Your task to perform on an android device: Go to internet settings Image 0: 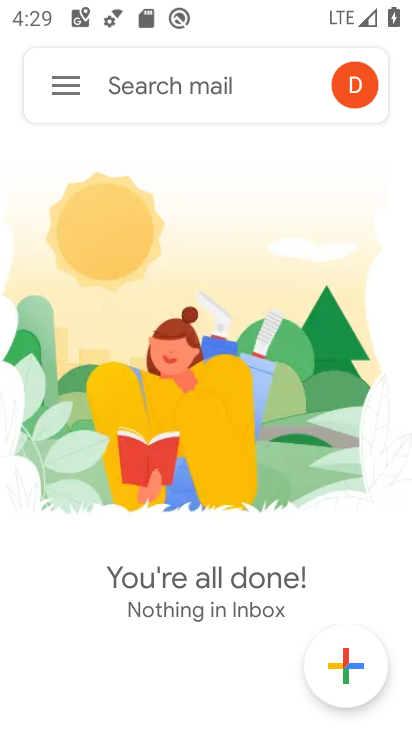
Step 0: press home button
Your task to perform on an android device: Go to internet settings Image 1: 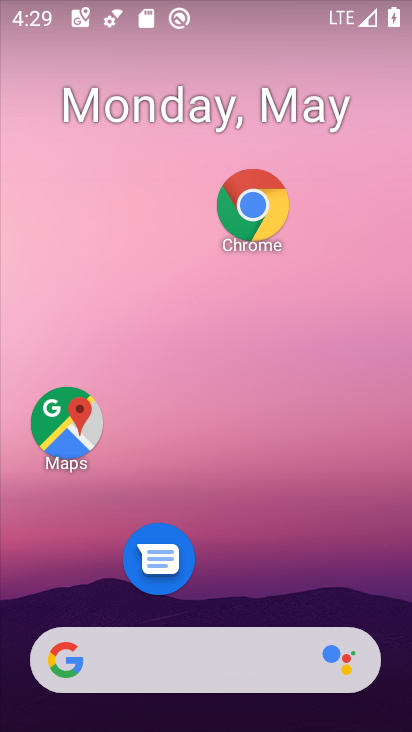
Step 1: drag from (220, 563) to (187, 261)
Your task to perform on an android device: Go to internet settings Image 2: 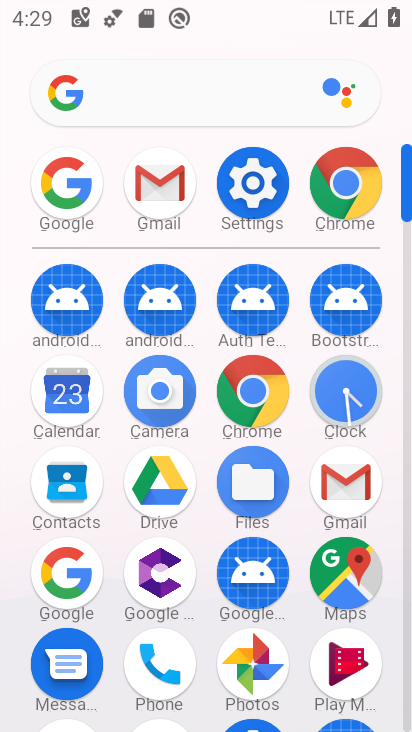
Step 2: click (252, 184)
Your task to perform on an android device: Go to internet settings Image 3: 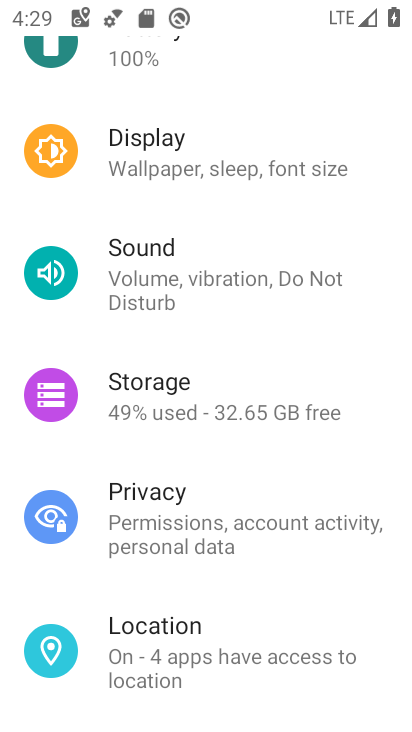
Step 3: drag from (199, 327) to (198, 517)
Your task to perform on an android device: Go to internet settings Image 4: 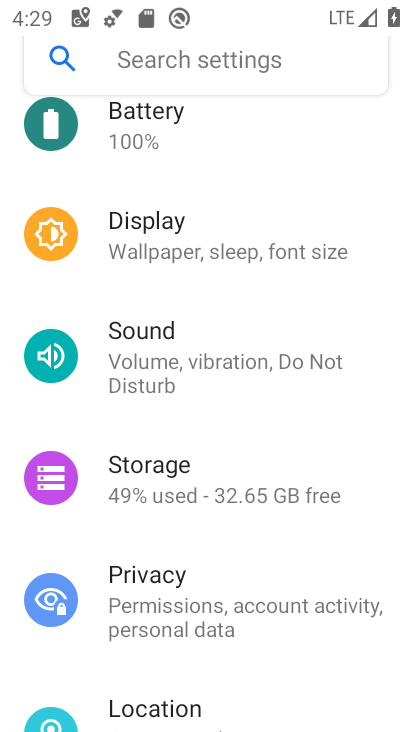
Step 4: drag from (206, 230) to (203, 446)
Your task to perform on an android device: Go to internet settings Image 5: 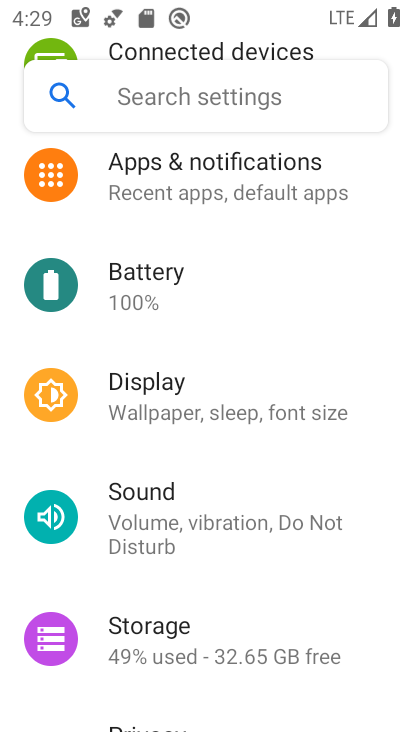
Step 5: drag from (174, 253) to (176, 491)
Your task to perform on an android device: Go to internet settings Image 6: 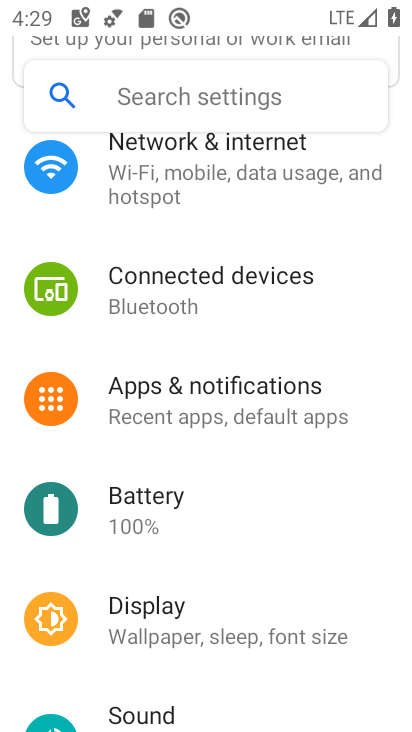
Step 6: click (170, 182)
Your task to perform on an android device: Go to internet settings Image 7: 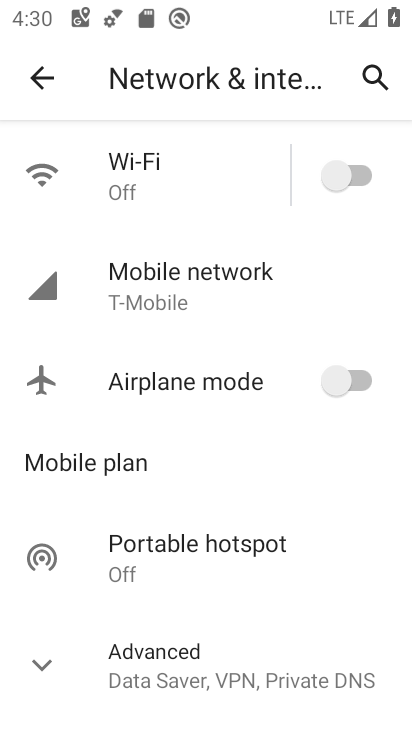
Step 7: click (148, 323)
Your task to perform on an android device: Go to internet settings Image 8: 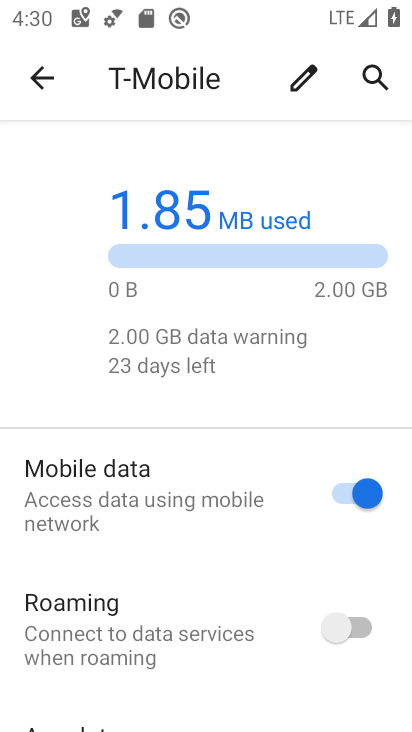
Step 8: task complete